Your task to perform on an android device: turn on translation in the chrome app Image 0: 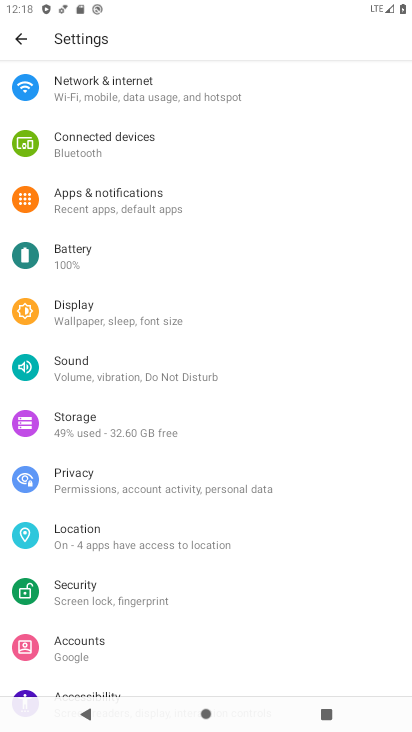
Step 0: press home button
Your task to perform on an android device: turn on translation in the chrome app Image 1: 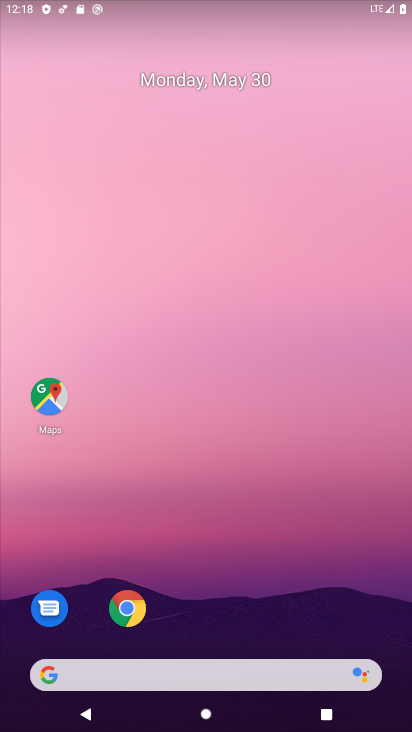
Step 1: click (132, 605)
Your task to perform on an android device: turn on translation in the chrome app Image 2: 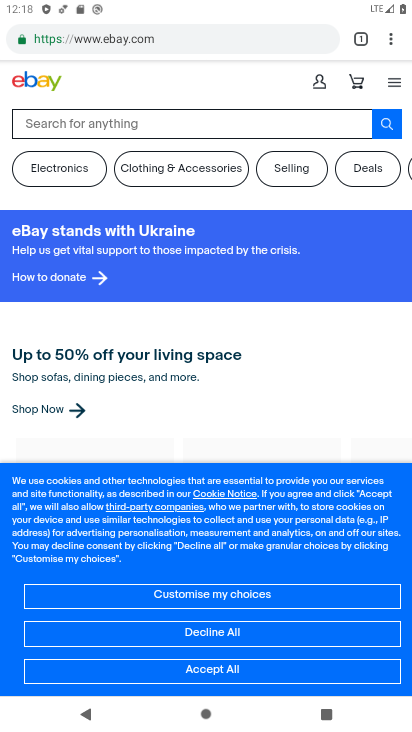
Step 2: click (389, 41)
Your task to perform on an android device: turn on translation in the chrome app Image 3: 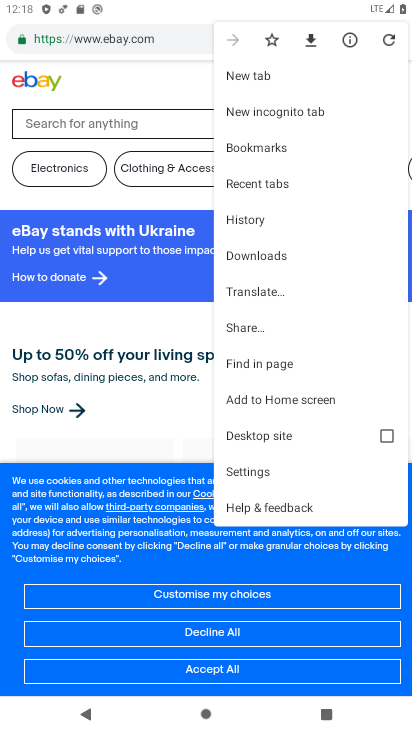
Step 3: click (251, 472)
Your task to perform on an android device: turn on translation in the chrome app Image 4: 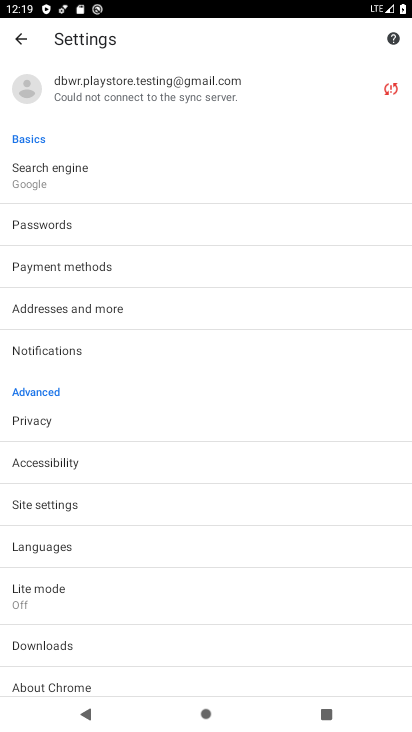
Step 4: drag from (86, 609) to (82, 540)
Your task to perform on an android device: turn on translation in the chrome app Image 5: 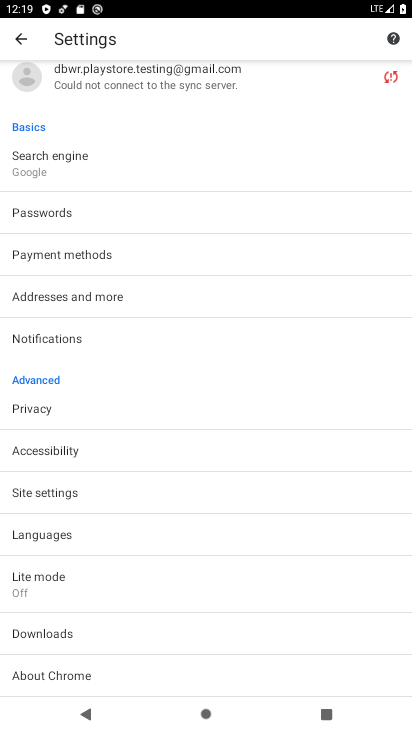
Step 5: click (82, 540)
Your task to perform on an android device: turn on translation in the chrome app Image 6: 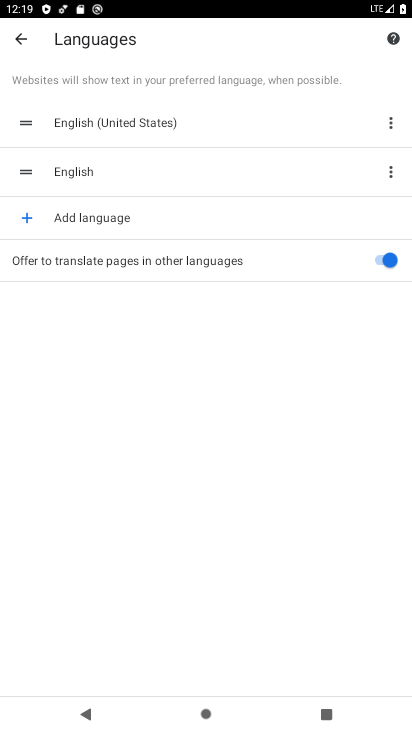
Step 6: task complete